Your task to perform on an android device: Check the news Image 0: 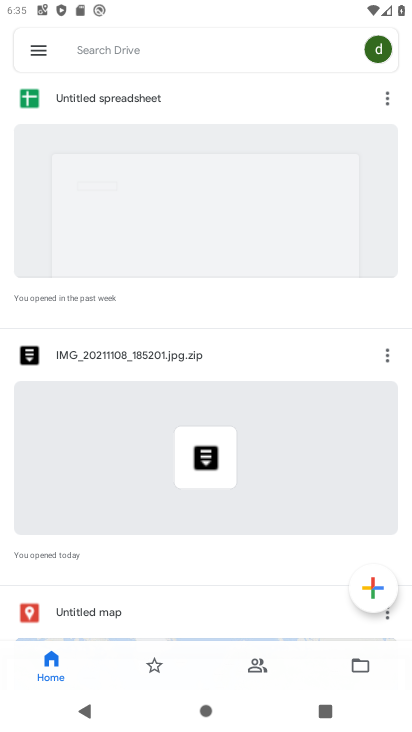
Step 0: press home button
Your task to perform on an android device: Check the news Image 1: 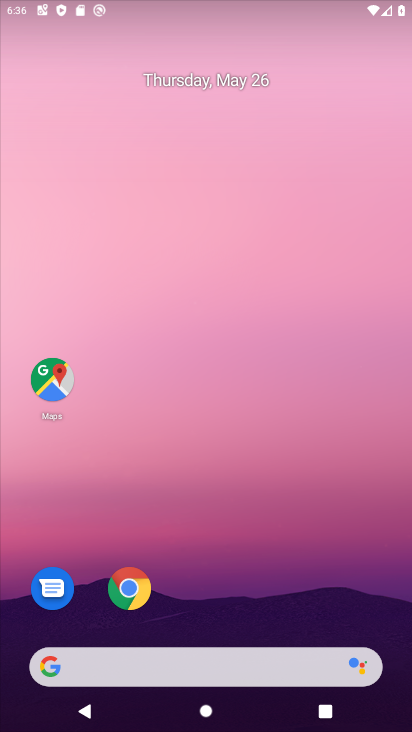
Step 1: drag from (369, 619) to (250, 22)
Your task to perform on an android device: Check the news Image 2: 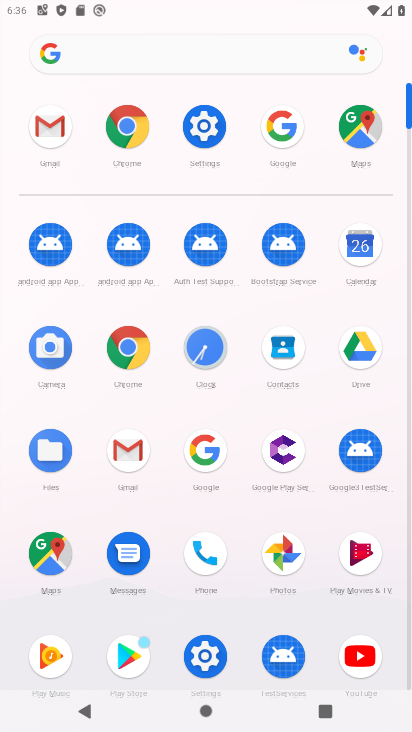
Step 2: click (225, 457)
Your task to perform on an android device: Check the news Image 3: 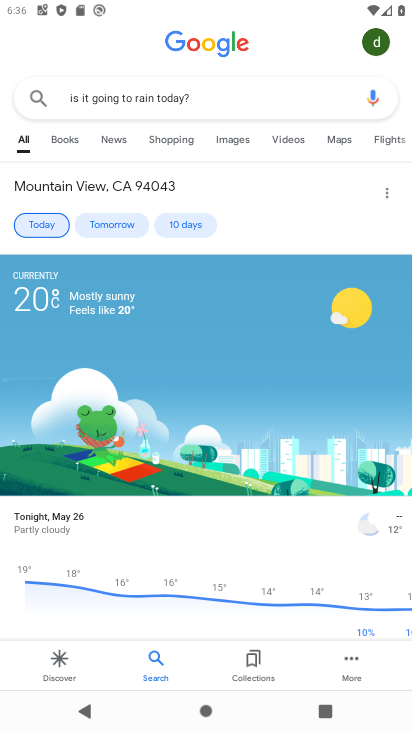
Step 3: press back button
Your task to perform on an android device: Check the news Image 4: 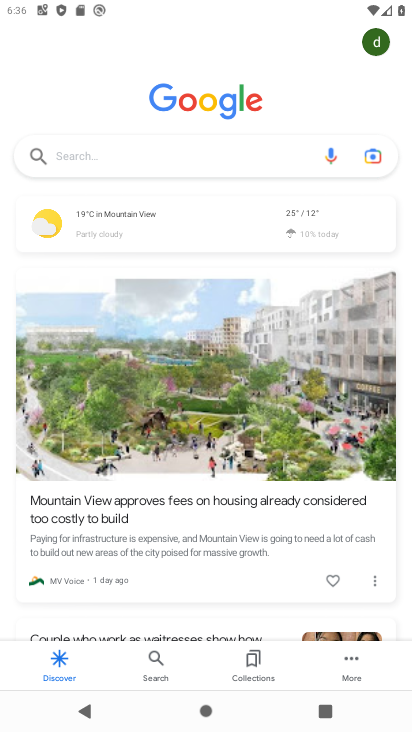
Step 4: click (155, 146)
Your task to perform on an android device: Check the news Image 5: 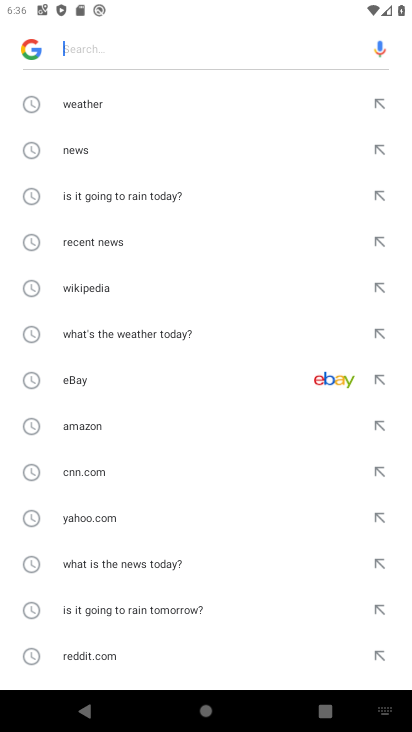
Step 5: click (98, 164)
Your task to perform on an android device: Check the news Image 6: 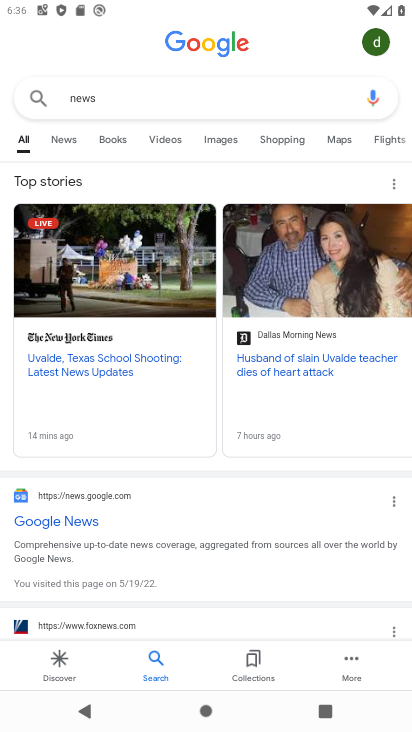
Step 6: task complete